Your task to perform on an android device: Go to Reddit.com Image 0: 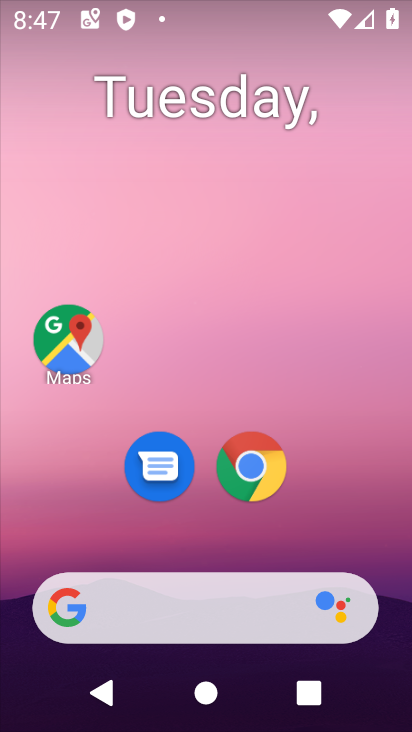
Step 0: click (244, 499)
Your task to perform on an android device: Go to Reddit.com Image 1: 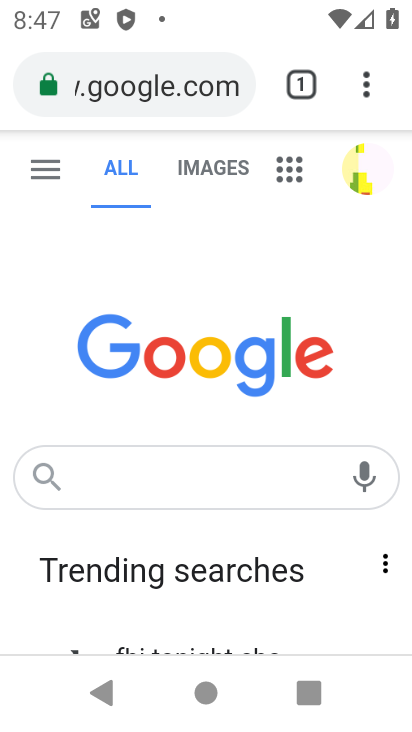
Step 1: click (152, 485)
Your task to perform on an android device: Go to Reddit.com Image 2: 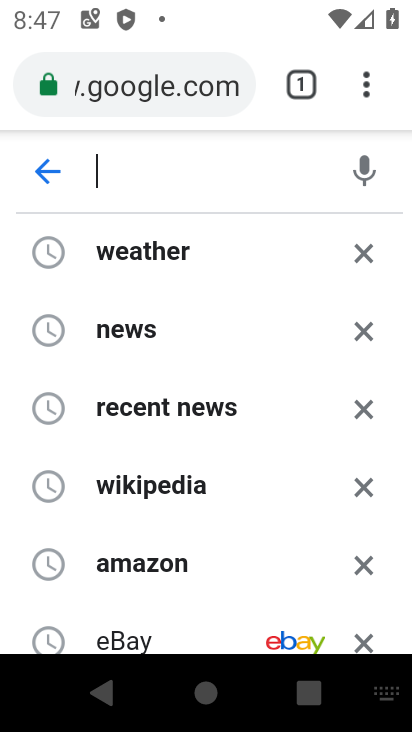
Step 2: type "reddit"
Your task to perform on an android device: Go to Reddit.com Image 3: 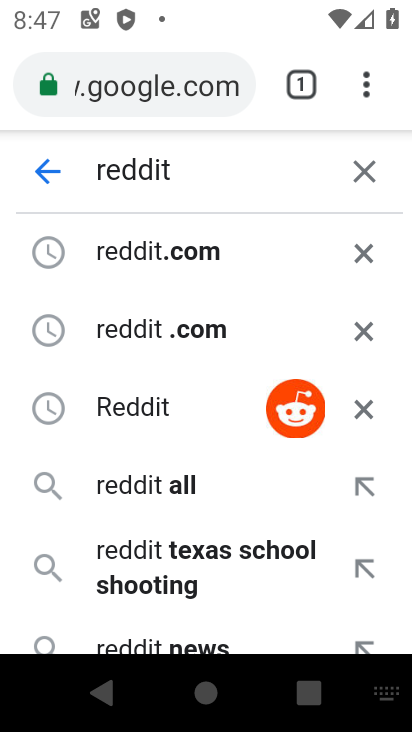
Step 3: click (159, 237)
Your task to perform on an android device: Go to Reddit.com Image 4: 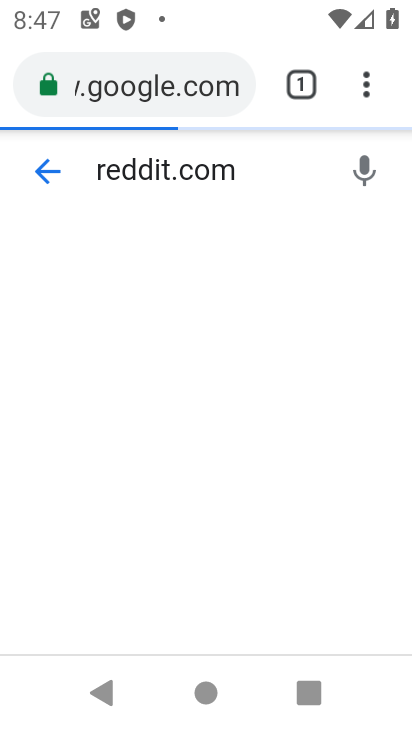
Step 4: task complete